Your task to perform on an android device: Open the calendar and show me this week's events? Image 0: 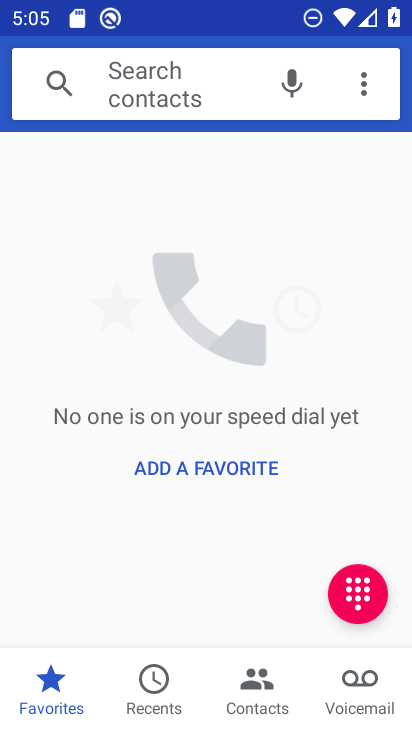
Step 0: press back button
Your task to perform on an android device: Open the calendar and show me this week's events? Image 1: 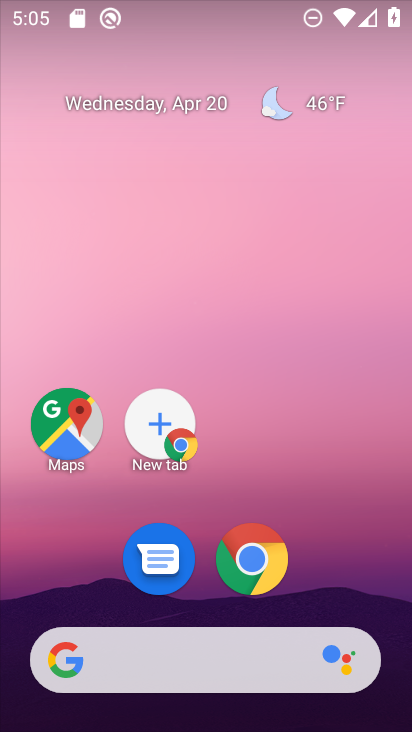
Step 1: drag from (333, 592) to (312, 217)
Your task to perform on an android device: Open the calendar and show me this week's events? Image 2: 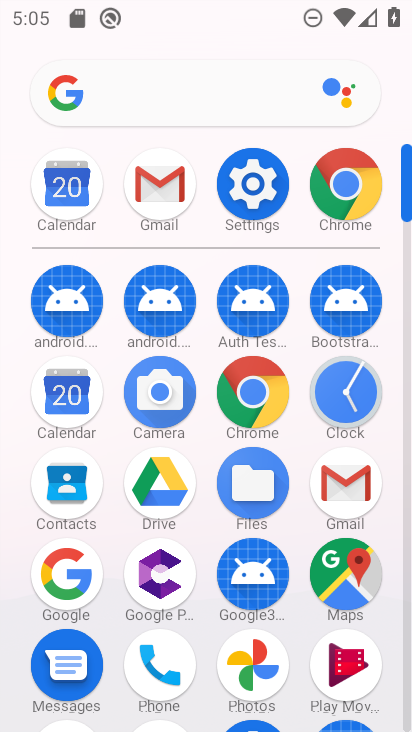
Step 2: click (78, 394)
Your task to perform on an android device: Open the calendar and show me this week's events? Image 3: 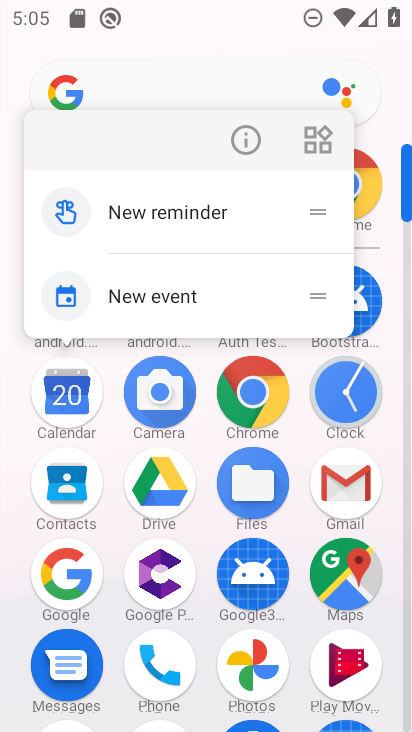
Step 3: click (78, 394)
Your task to perform on an android device: Open the calendar and show me this week's events? Image 4: 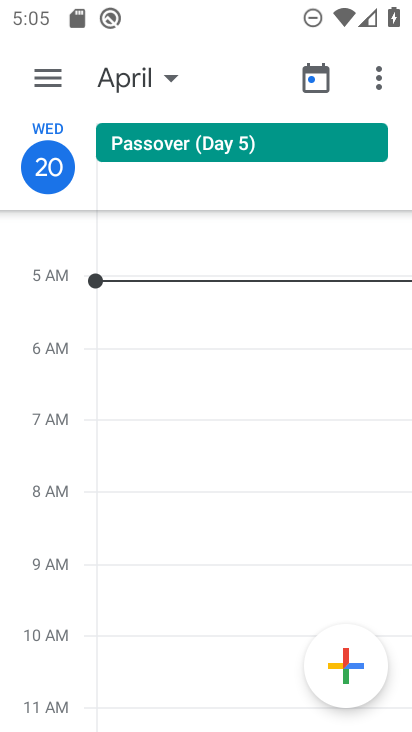
Step 4: click (61, 171)
Your task to perform on an android device: Open the calendar and show me this week's events? Image 5: 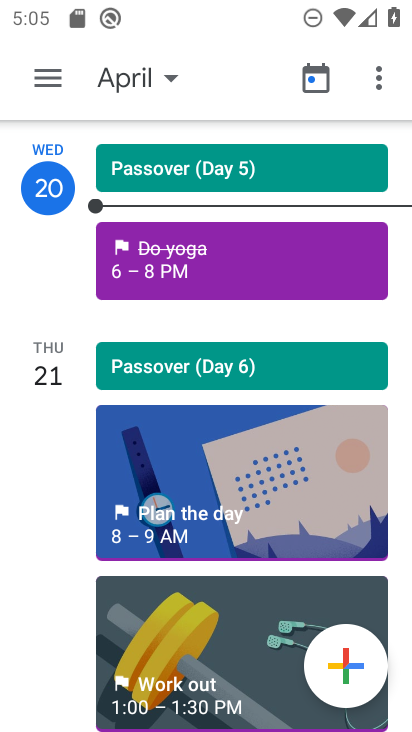
Step 5: click (57, 87)
Your task to perform on an android device: Open the calendar and show me this week's events? Image 6: 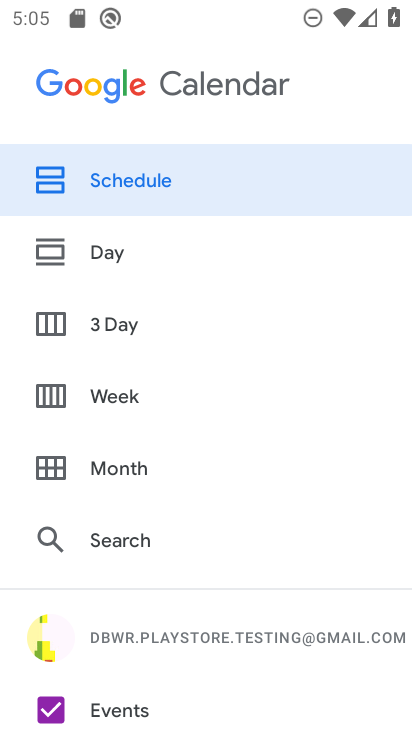
Step 6: click (85, 382)
Your task to perform on an android device: Open the calendar and show me this week's events? Image 7: 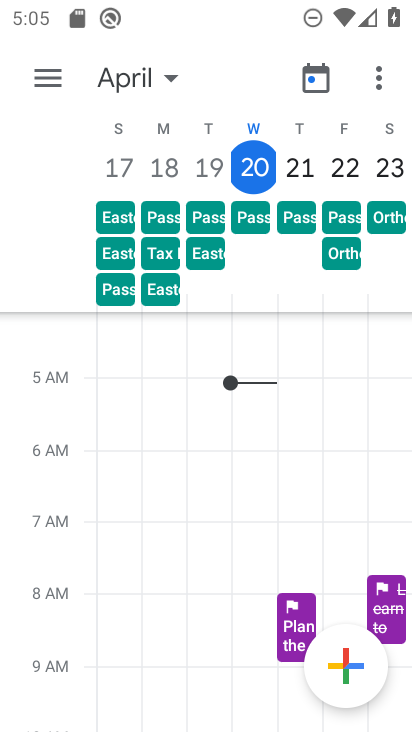
Step 7: task complete